Your task to perform on an android device: Go to Maps Image 0: 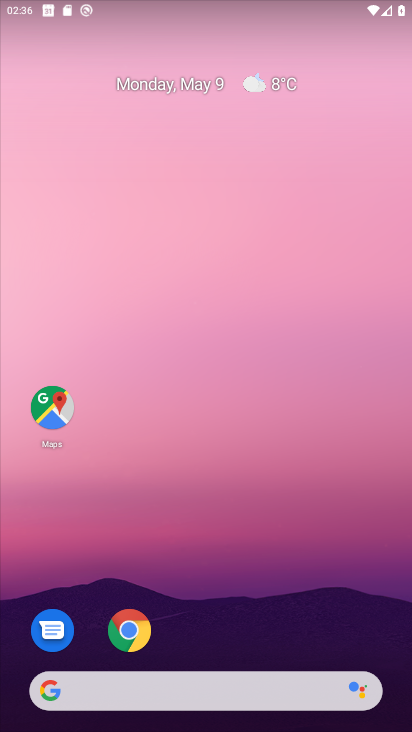
Step 0: click (145, 625)
Your task to perform on an android device: Go to Maps Image 1: 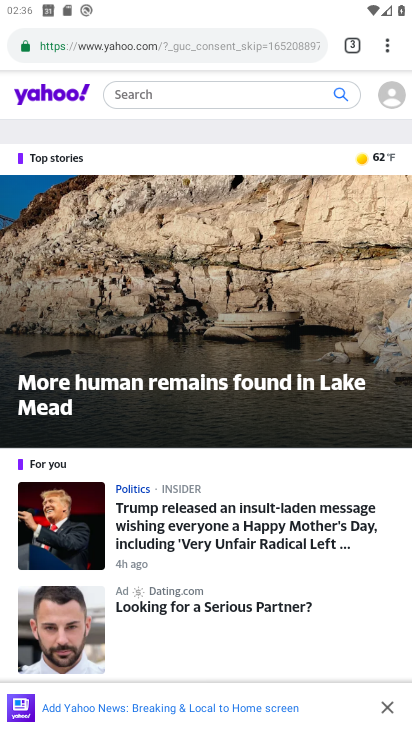
Step 1: press home button
Your task to perform on an android device: Go to Maps Image 2: 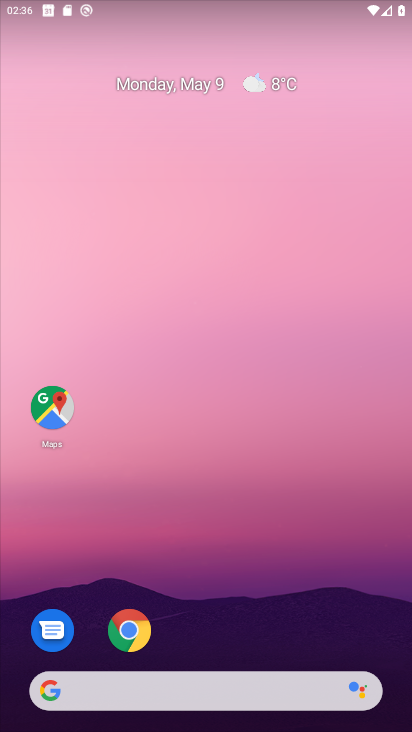
Step 2: click (72, 409)
Your task to perform on an android device: Go to Maps Image 3: 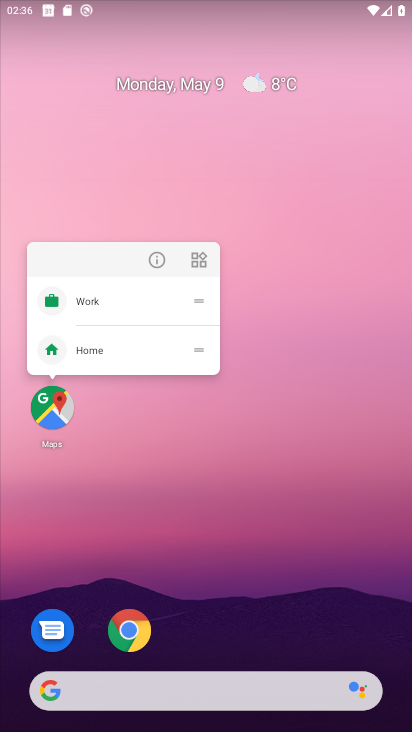
Step 3: click (59, 404)
Your task to perform on an android device: Go to Maps Image 4: 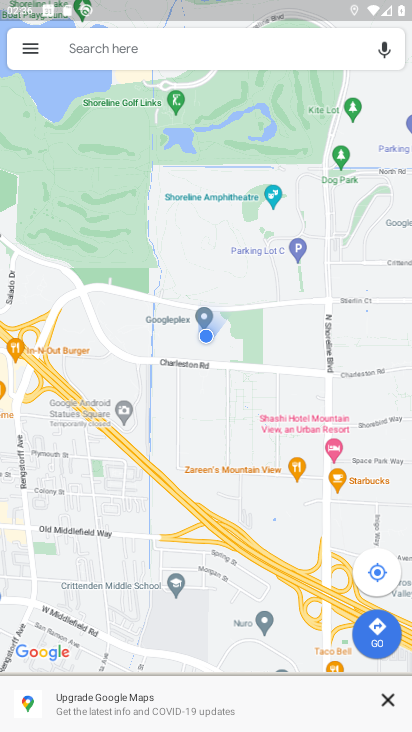
Step 4: task complete